Your task to perform on an android device: Open Wikipedia Image 0: 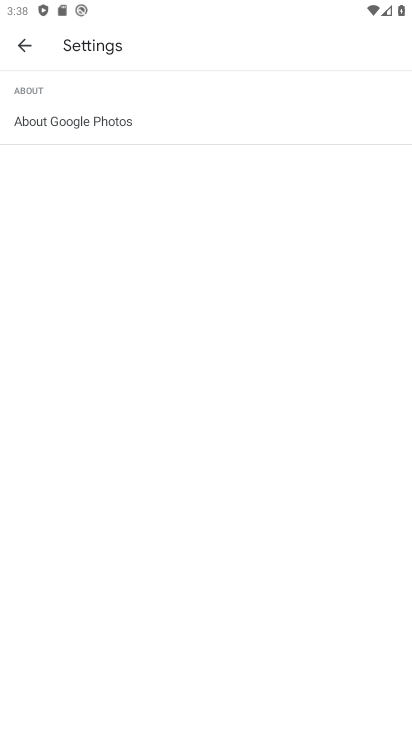
Step 0: press back button
Your task to perform on an android device: Open Wikipedia Image 1: 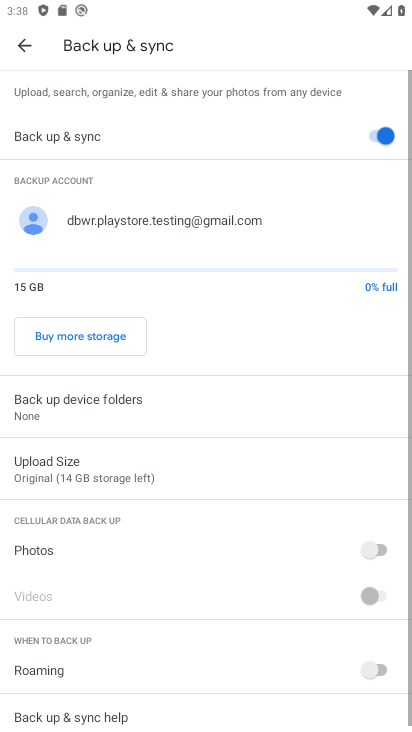
Step 1: press back button
Your task to perform on an android device: Open Wikipedia Image 2: 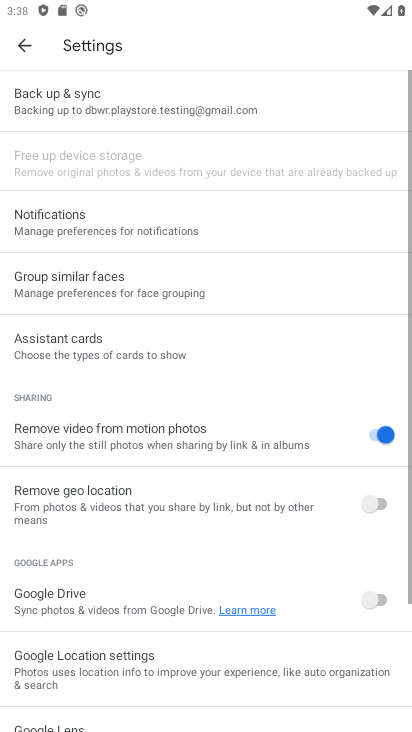
Step 2: press back button
Your task to perform on an android device: Open Wikipedia Image 3: 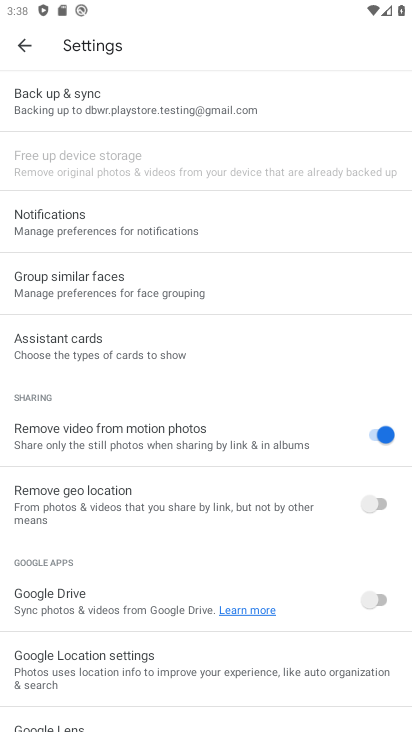
Step 3: press back button
Your task to perform on an android device: Open Wikipedia Image 4: 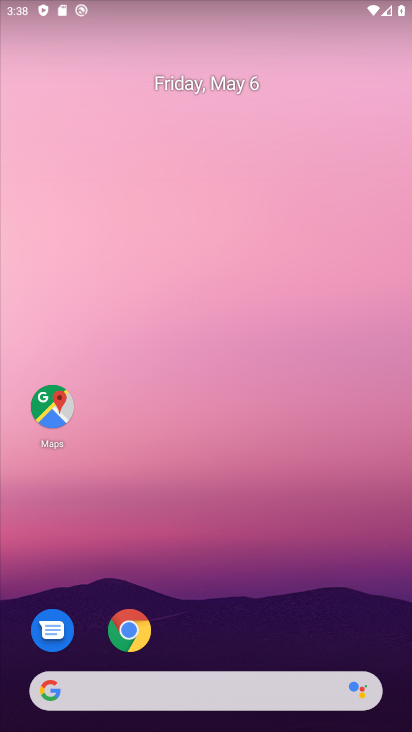
Step 4: click (132, 631)
Your task to perform on an android device: Open Wikipedia Image 5: 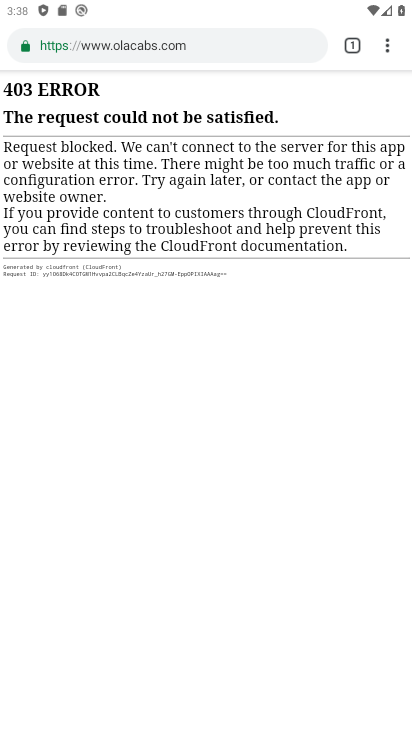
Step 5: click (349, 41)
Your task to perform on an android device: Open Wikipedia Image 6: 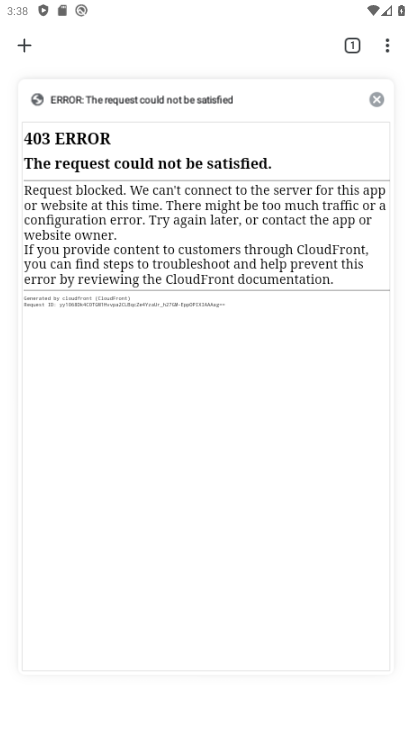
Step 6: click (27, 45)
Your task to perform on an android device: Open Wikipedia Image 7: 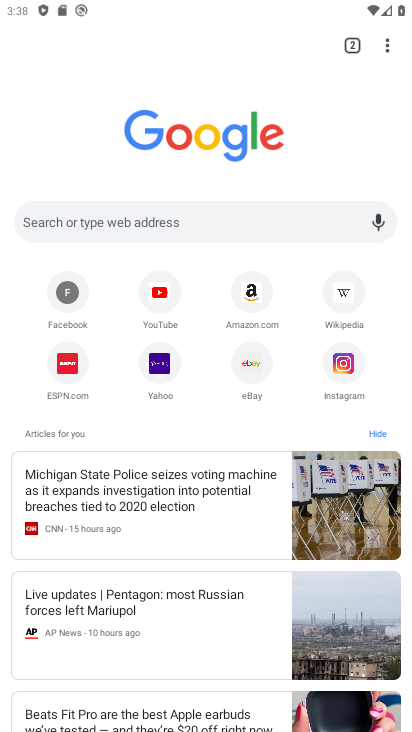
Step 7: click (336, 296)
Your task to perform on an android device: Open Wikipedia Image 8: 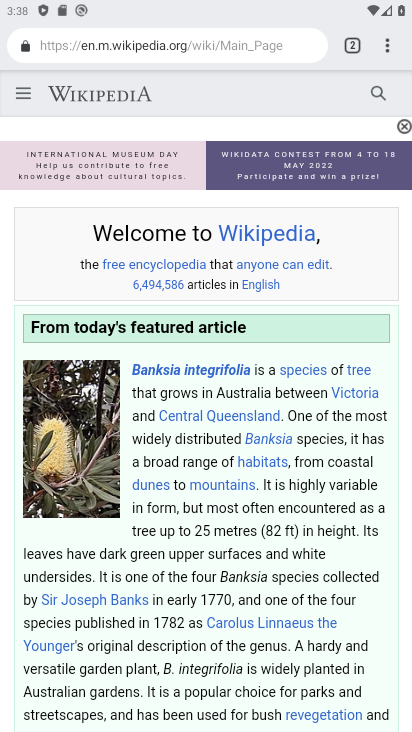
Step 8: task complete